Your task to perform on an android device: Open Google Maps Image 0: 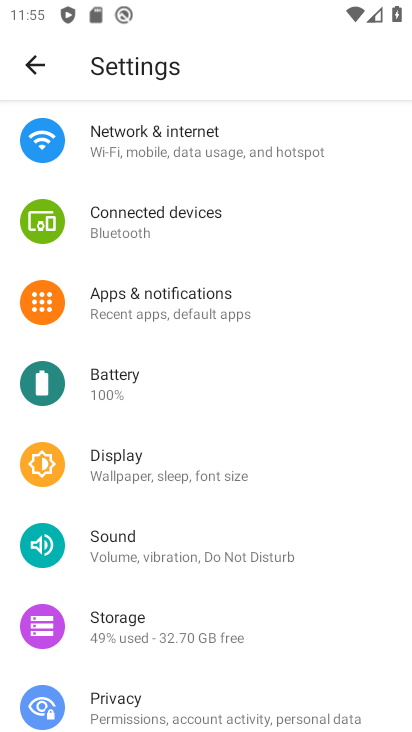
Step 0: press home button
Your task to perform on an android device: Open Google Maps Image 1: 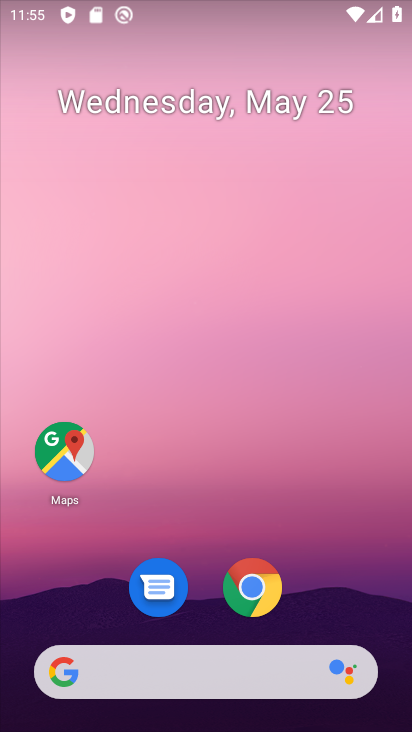
Step 1: click (63, 449)
Your task to perform on an android device: Open Google Maps Image 2: 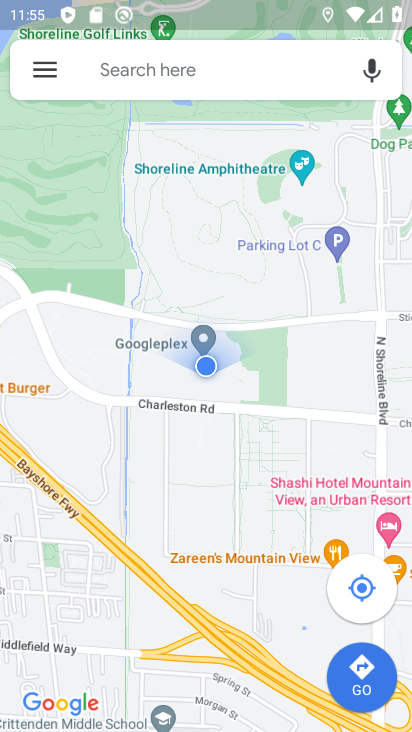
Step 2: click (360, 666)
Your task to perform on an android device: Open Google Maps Image 3: 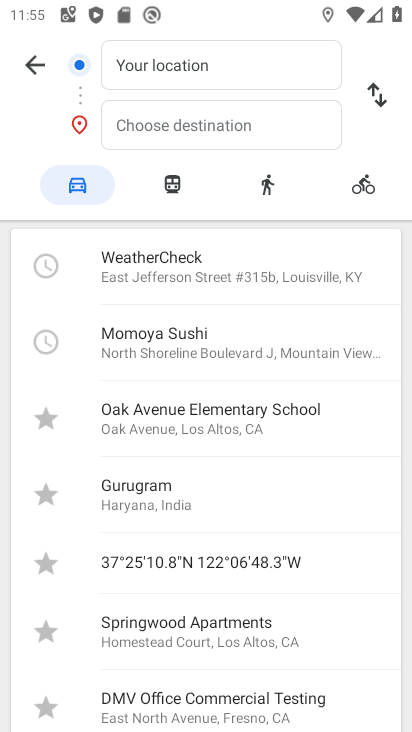
Step 3: task complete